Your task to perform on an android device: Clear the cart on target.com. Add bose soundlink mini to the cart on target.com, then select checkout. Image 0: 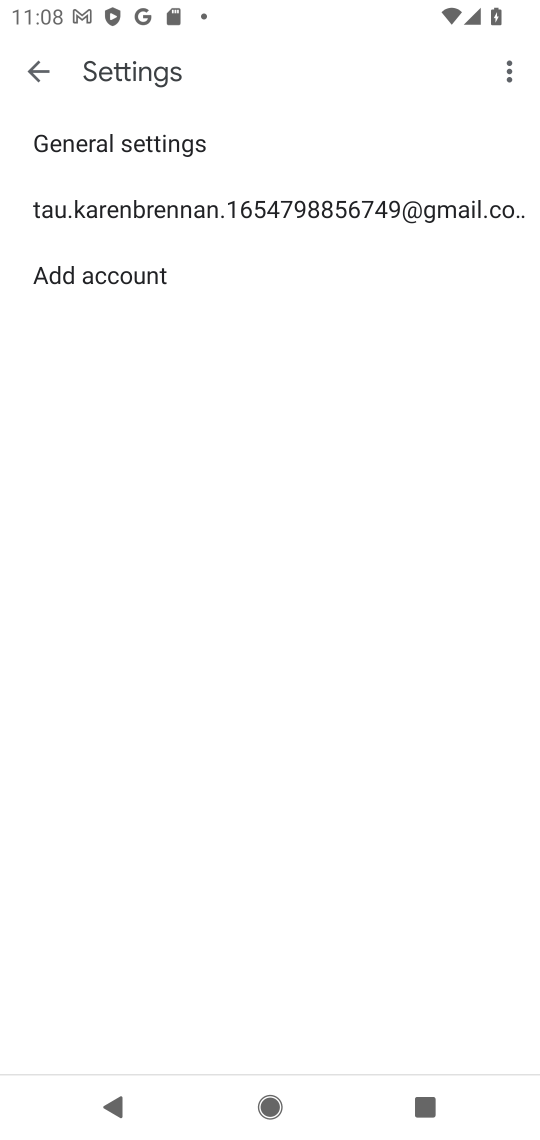
Step 0: press home button
Your task to perform on an android device: Clear the cart on target.com. Add bose soundlink mini to the cart on target.com, then select checkout. Image 1: 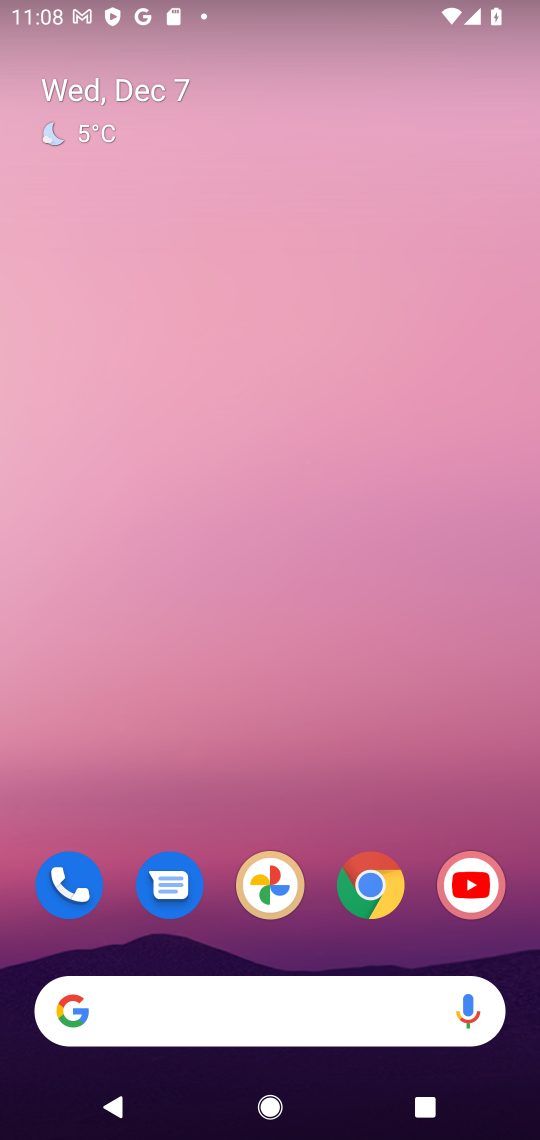
Step 1: click (374, 899)
Your task to perform on an android device: Clear the cart on target.com. Add bose soundlink mini to the cart on target.com, then select checkout. Image 2: 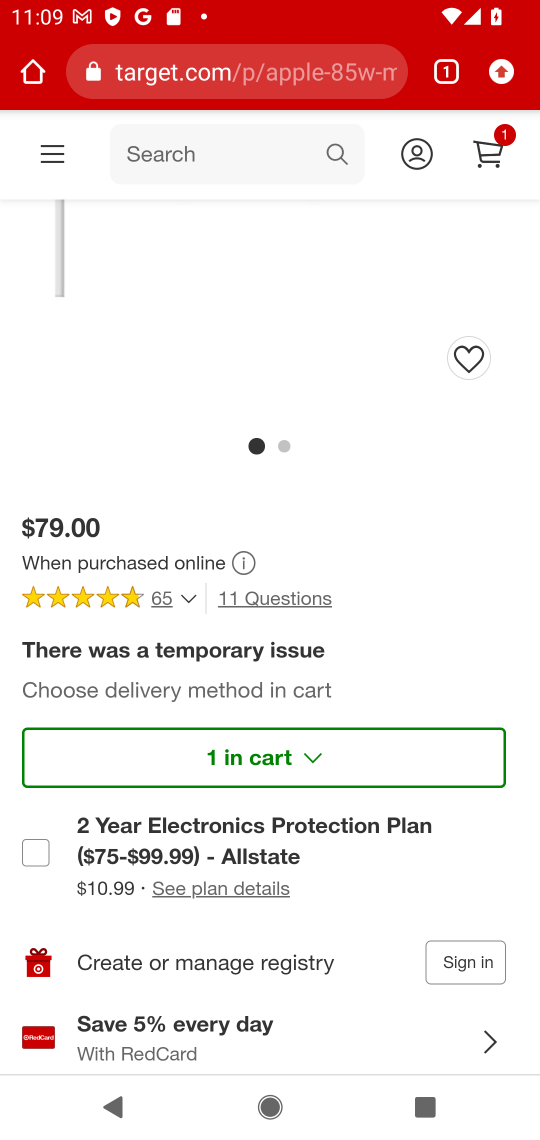
Step 2: click (333, 150)
Your task to perform on an android device: Clear the cart on target.com. Add bose soundlink mini to the cart on target.com, then select checkout. Image 3: 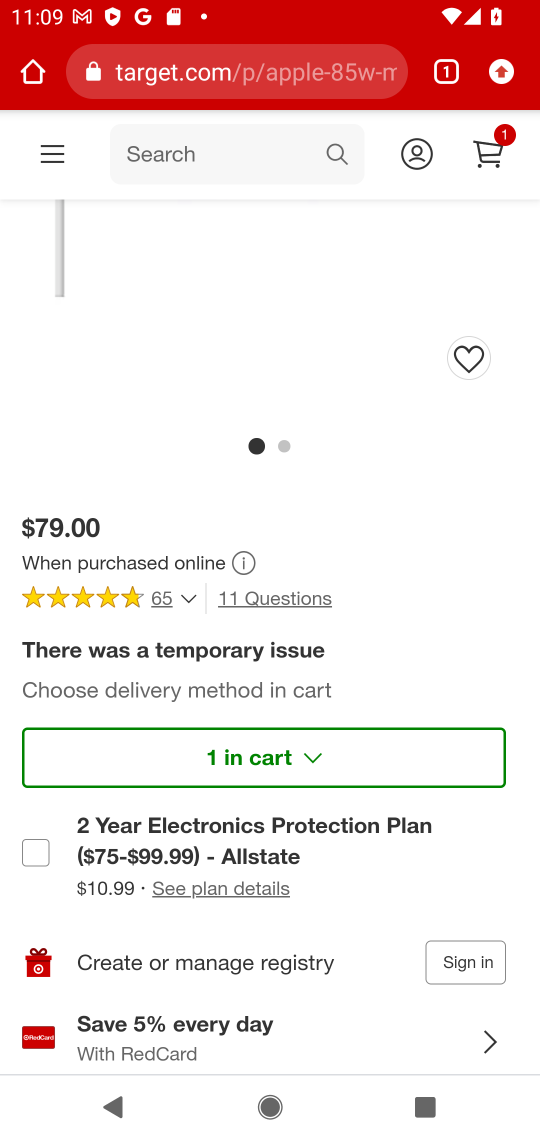
Step 3: click (198, 82)
Your task to perform on an android device: Clear the cart on target.com. Add bose soundlink mini to the cart on target.com, then select checkout. Image 4: 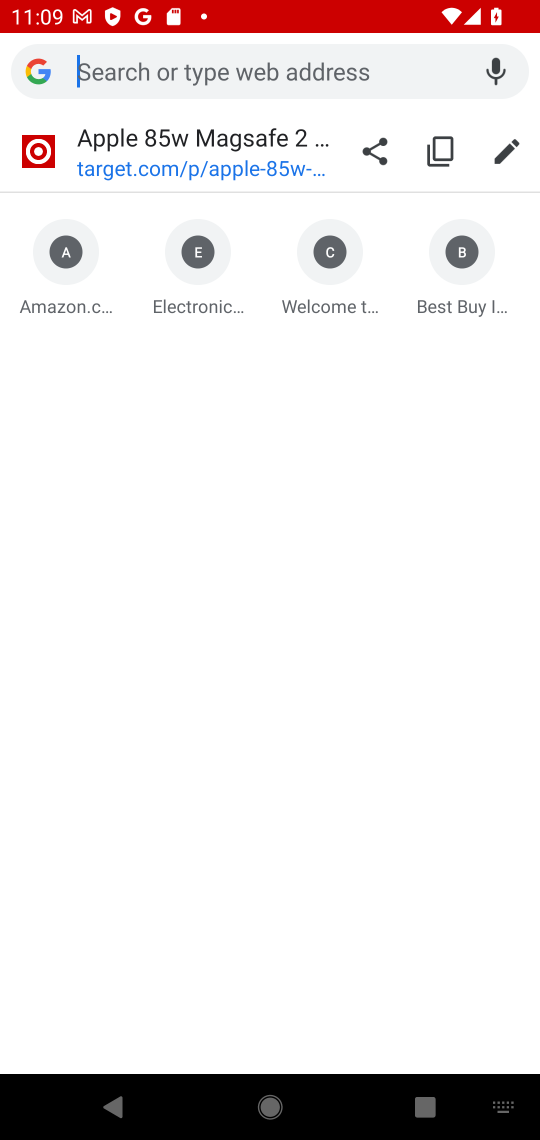
Step 4: click (116, 162)
Your task to perform on an android device: Clear the cart on target.com. Add bose soundlink mini to the cart on target.com, then select checkout. Image 5: 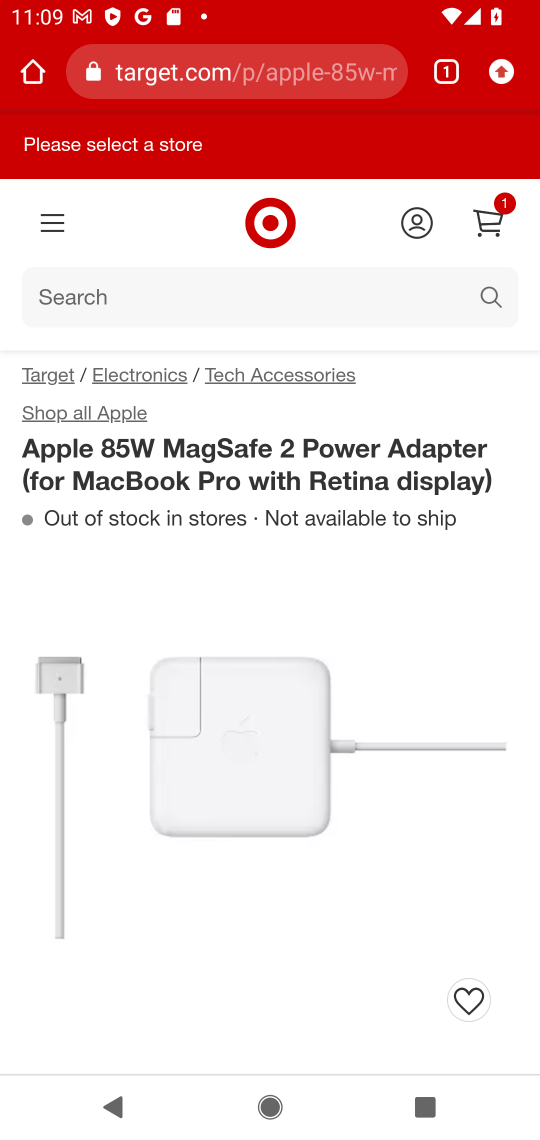
Step 5: click (429, 301)
Your task to perform on an android device: Clear the cart on target.com. Add bose soundlink mini to the cart on target.com, then select checkout. Image 6: 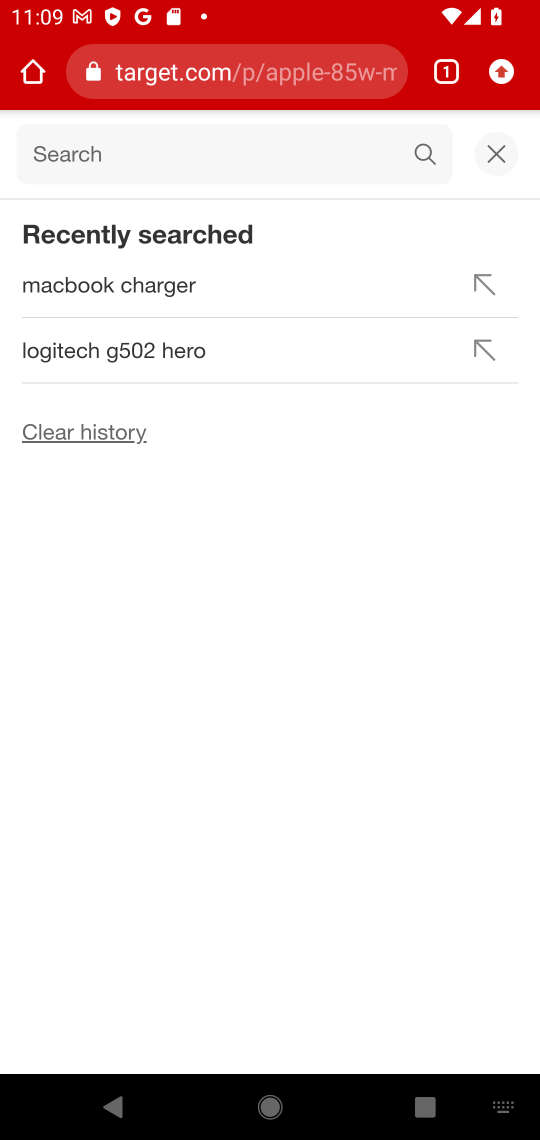
Step 6: type "BOSE SOUNDLINK MINI"
Your task to perform on an android device: Clear the cart on target.com. Add bose soundlink mini to the cart on target.com, then select checkout. Image 7: 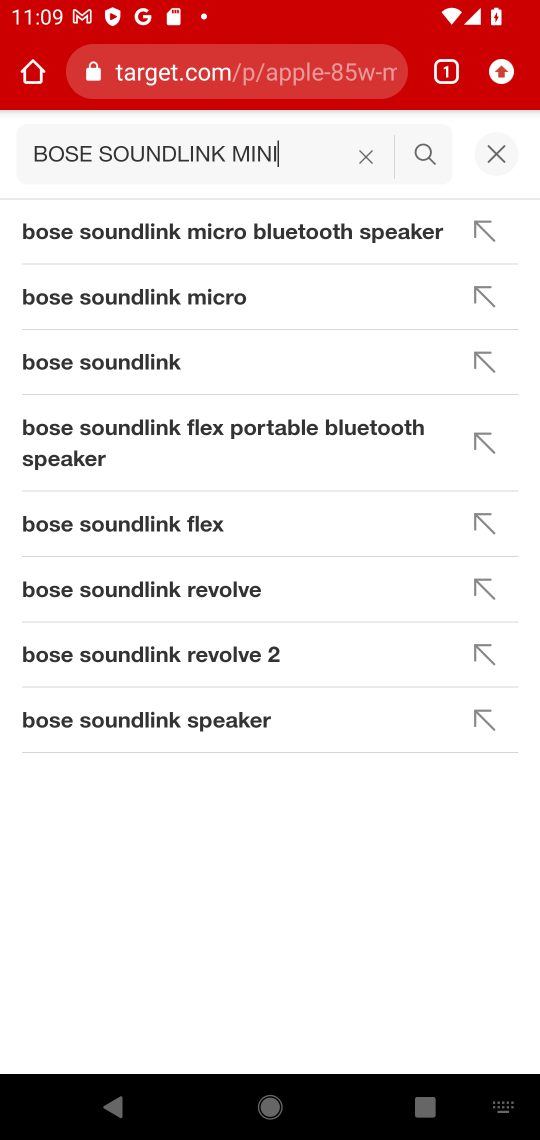
Step 7: click (135, 231)
Your task to perform on an android device: Clear the cart on target.com. Add bose soundlink mini to the cart on target.com, then select checkout. Image 8: 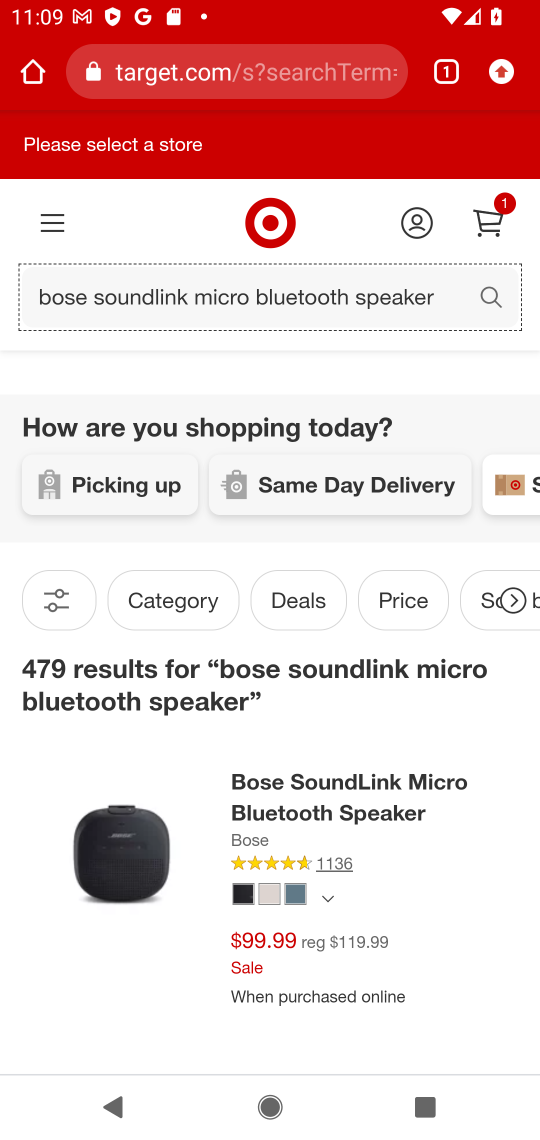
Step 8: click (123, 862)
Your task to perform on an android device: Clear the cart on target.com. Add bose soundlink mini to the cart on target.com, then select checkout. Image 9: 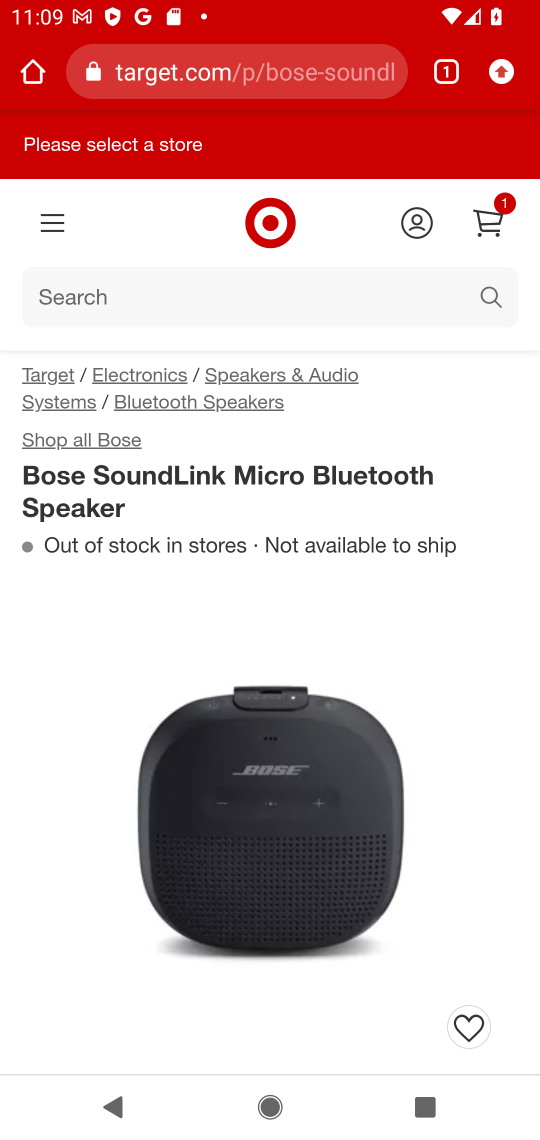
Step 9: drag from (352, 933) to (345, 256)
Your task to perform on an android device: Clear the cart on target.com. Add bose soundlink mini to the cart on target.com, then select checkout. Image 10: 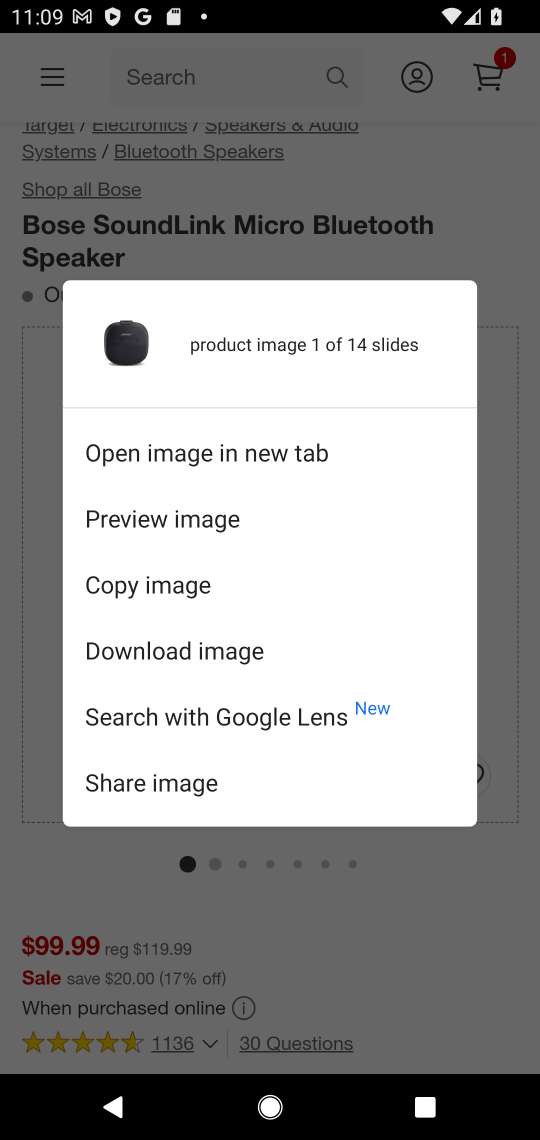
Step 10: click (324, 1001)
Your task to perform on an android device: Clear the cart on target.com. Add bose soundlink mini to the cart on target.com, then select checkout. Image 11: 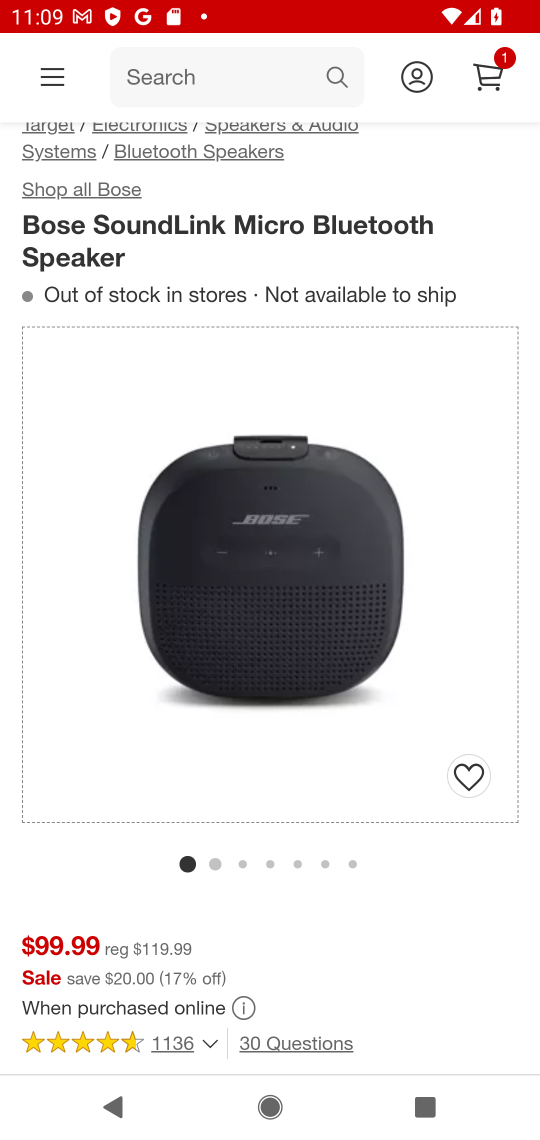
Step 11: drag from (324, 1001) to (300, 140)
Your task to perform on an android device: Clear the cart on target.com. Add bose soundlink mini to the cart on target.com, then select checkout. Image 12: 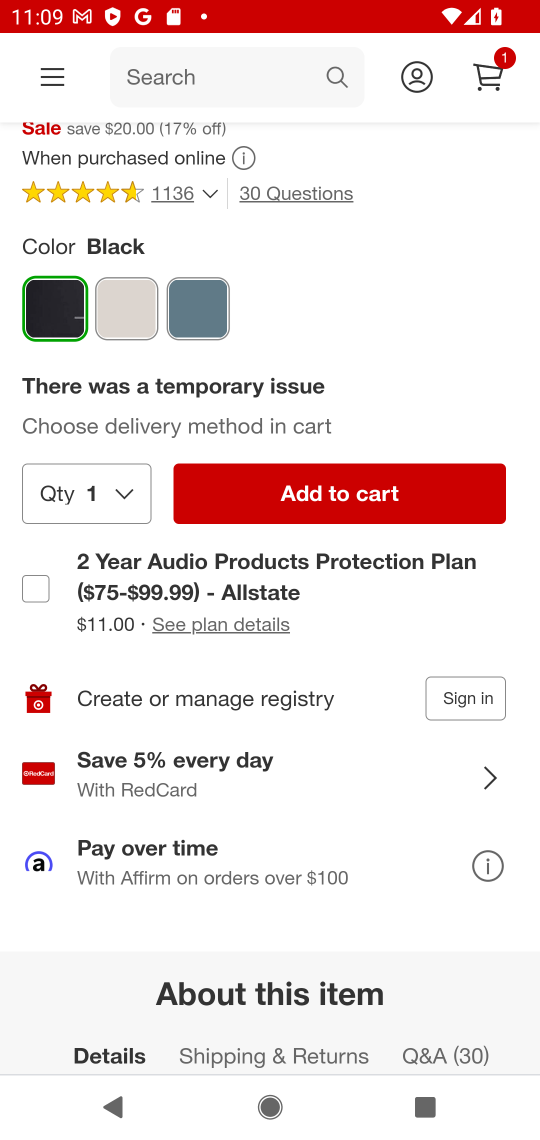
Step 12: click (364, 489)
Your task to perform on an android device: Clear the cart on target.com. Add bose soundlink mini to the cart on target.com, then select checkout. Image 13: 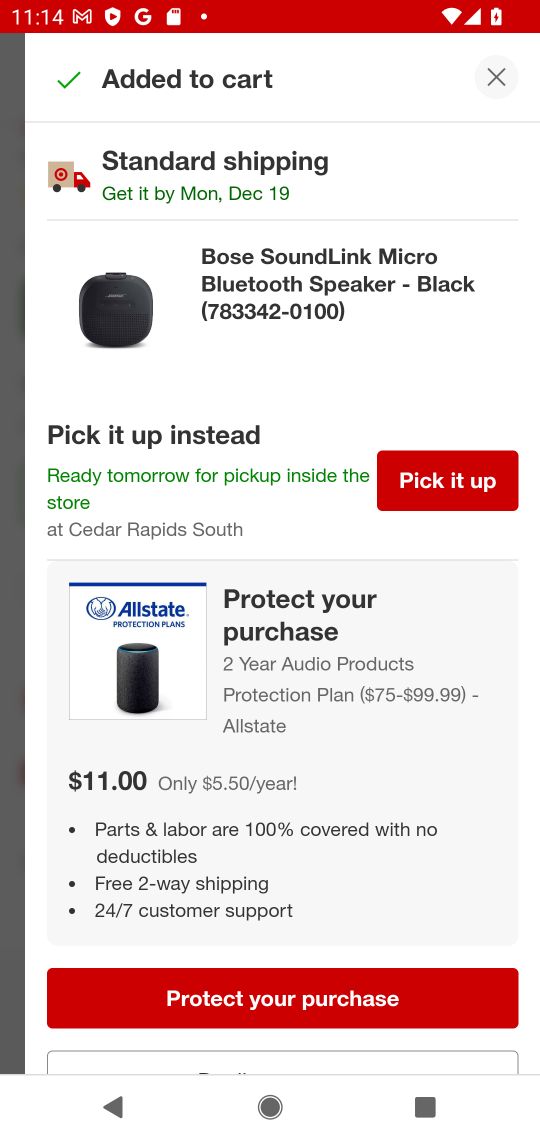
Step 13: task complete